Your task to perform on an android device: turn on location history Image 0: 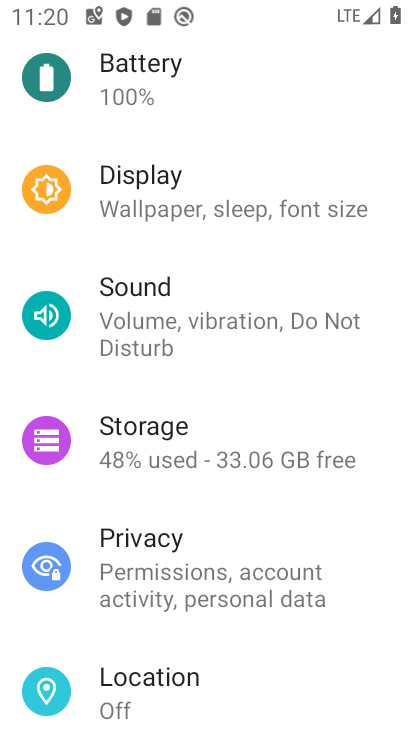
Step 0: click (249, 691)
Your task to perform on an android device: turn on location history Image 1: 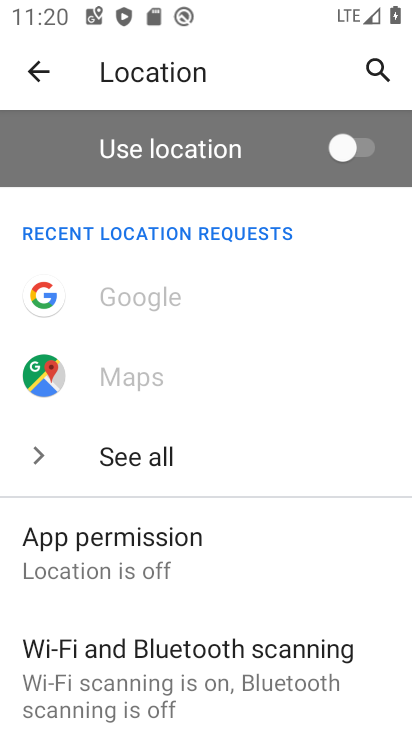
Step 1: click (365, 145)
Your task to perform on an android device: turn on location history Image 2: 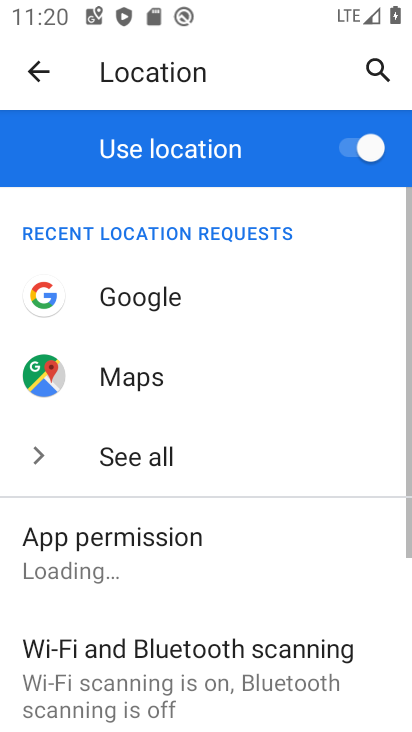
Step 2: task complete